Your task to perform on an android device: change text size in settings app Image 0: 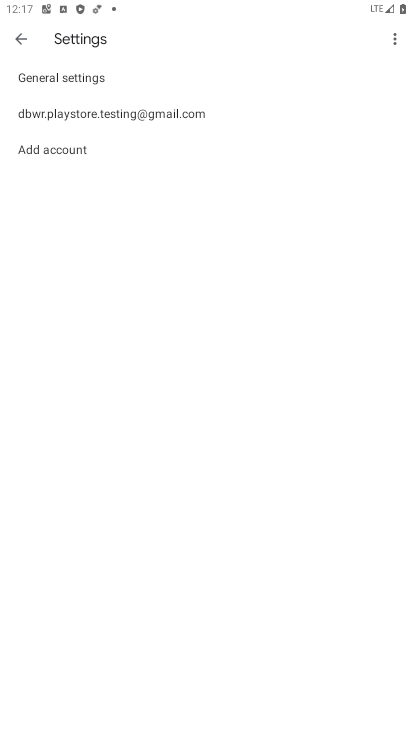
Step 0: press home button
Your task to perform on an android device: change text size in settings app Image 1: 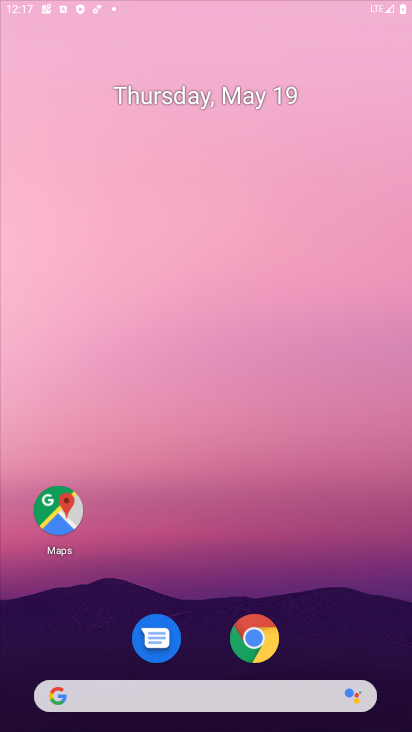
Step 1: drag from (361, 660) to (297, 48)
Your task to perform on an android device: change text size in settings app Image 2: 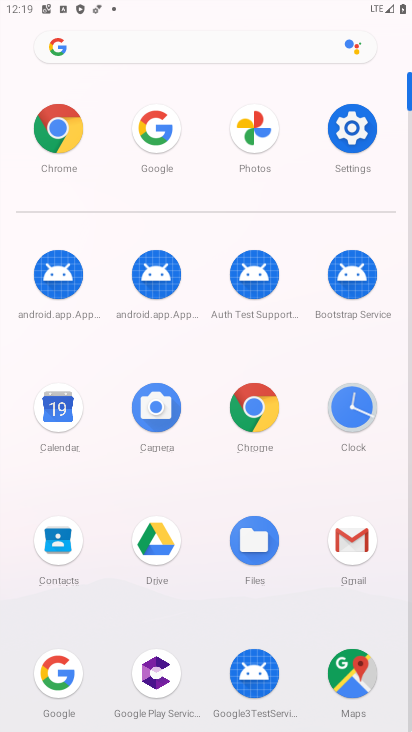
Step 2: click (357, 142)
Your task to perform on an android device: change text size in settings app Image 3: 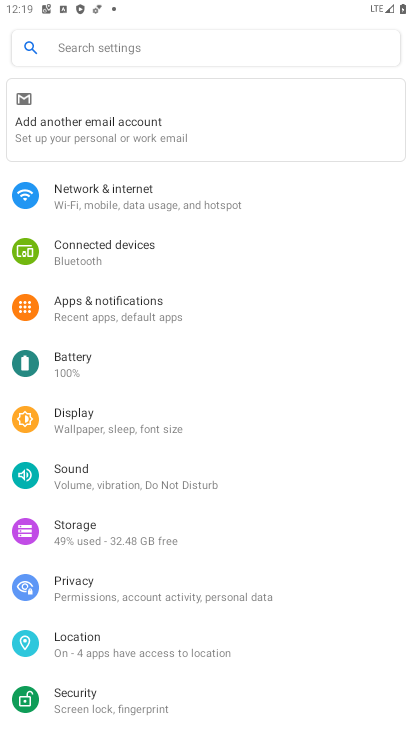
Step 3: click (93, 430)
Your task to perform on an android device: change text size in settings app Image 4: 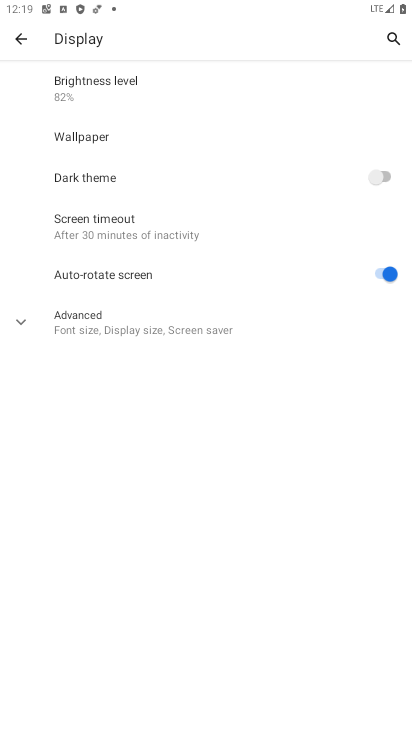
Step 4: click (88, 352)
Your task to perform on an android device: change text size in settings app Image 5: 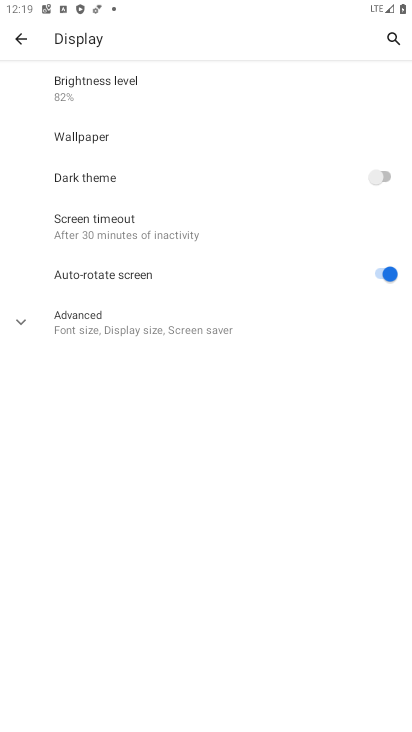
Step 5: click (113, 334)
Your task to perform on an android device: change text size in settings app Image 6: 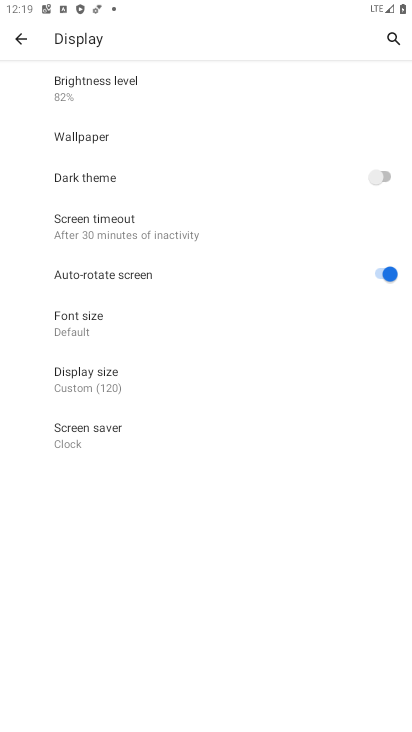
Step 6: click (113, 334)
Your task to perform on an android device: change text size in settings app Image 7: 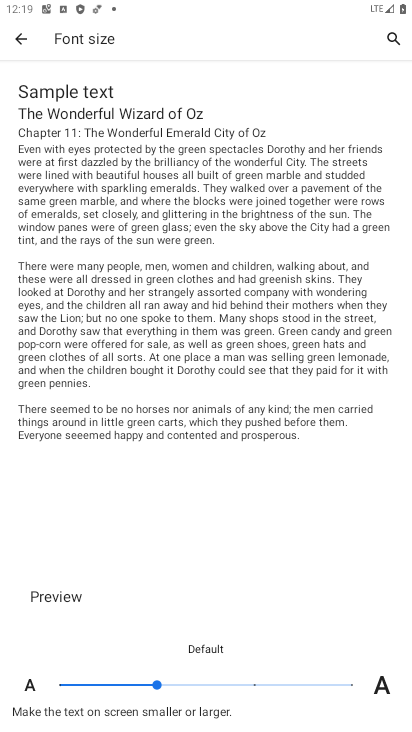
Step 7: click (261, 682)
Your task to perform on an android device: change text size in settings app Image 8: 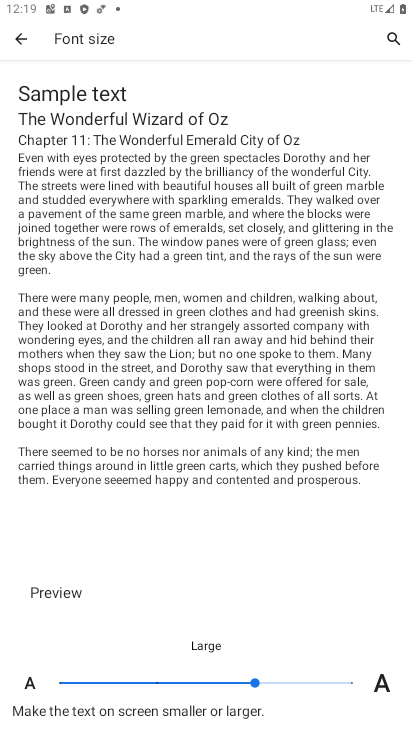
Step 8: task complete